Your task to perform on an android device: Open Reddit.com Image 0: 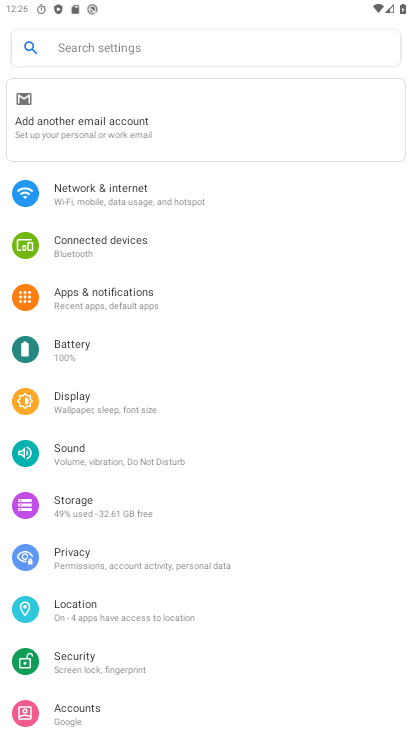
Step 0: press back button
Your task to perform on an android device: Open Reddit.com Image 1: 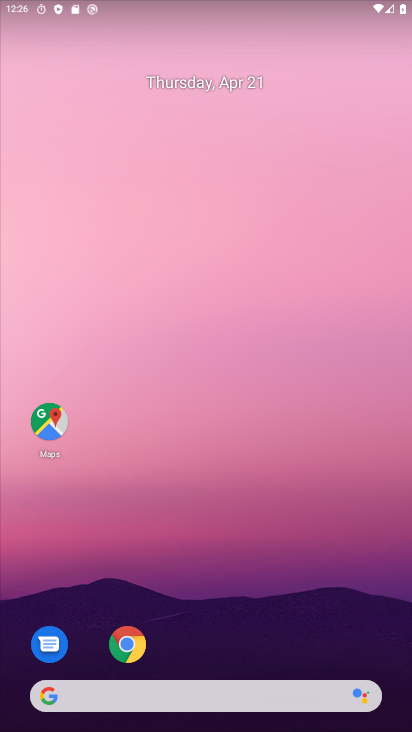
Step 1: click (133, 643)
Your task to perform on an android device: Open Reddit.com Image 2: 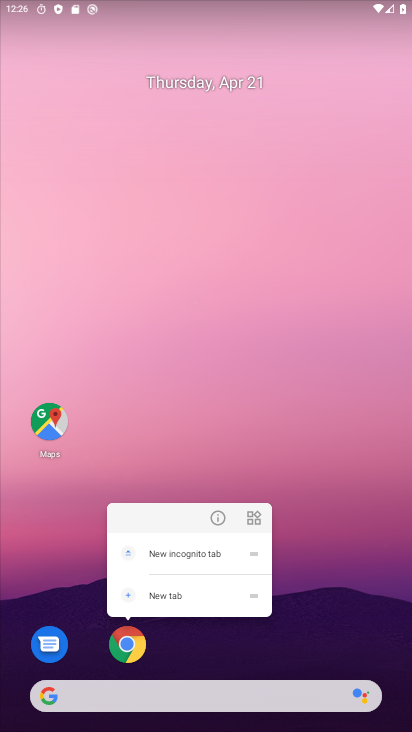
Step 2: click (129, 642)
Your task to perform on an android device: Open Reddit.com Image 3: 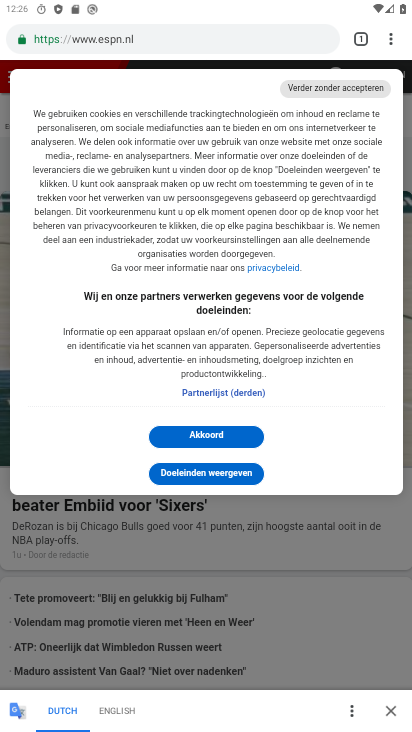
Step 3: click (362, 40)
Your task to perform on an android device: Open Reddit.com Image 4: 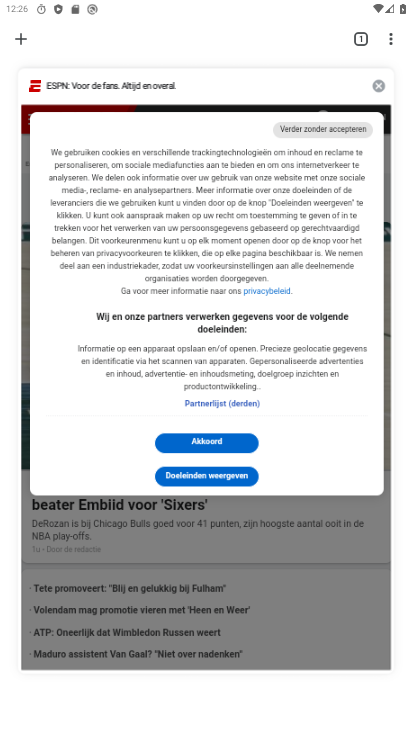
Step 4: click (16, 32)
Your task to perform on an android device: Open Reddit.com Image 5: 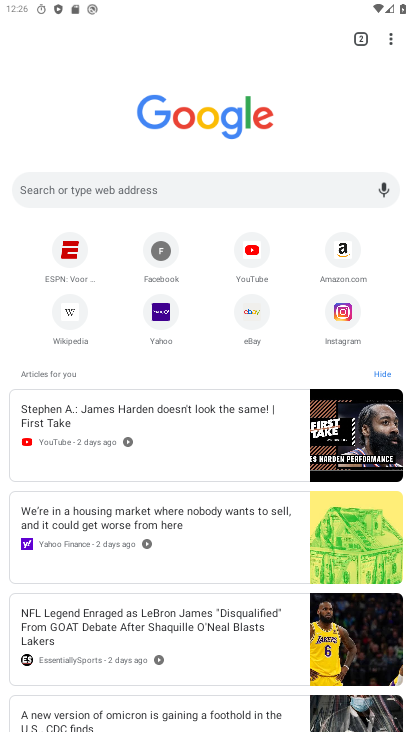
Step 5: click (121, 180)
Your task to perform on an android device: Open Reddit.com Image 6: 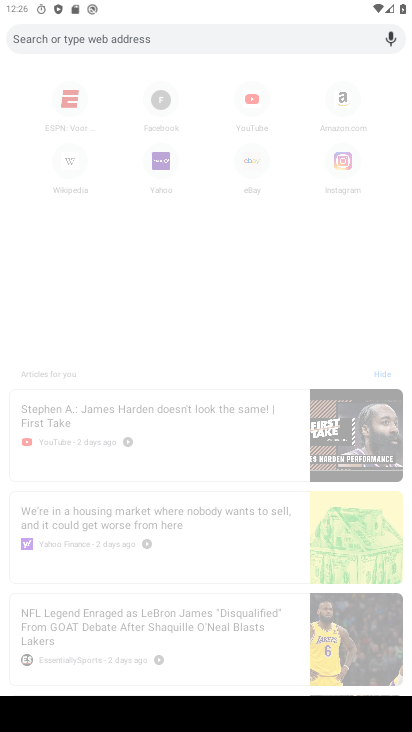
Step 6: type "reddit.com"
Your task to perform on an android device: Open Reddit.com Image 7: 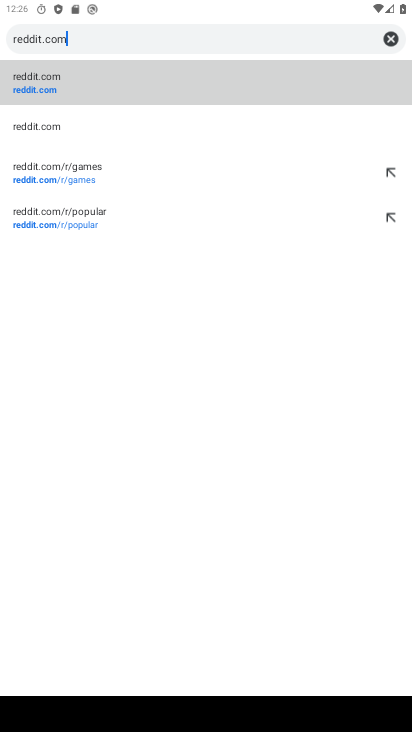
Step 7: click (86, 81)
Your task to perform on an android device: Open Reddit.com Image 8: 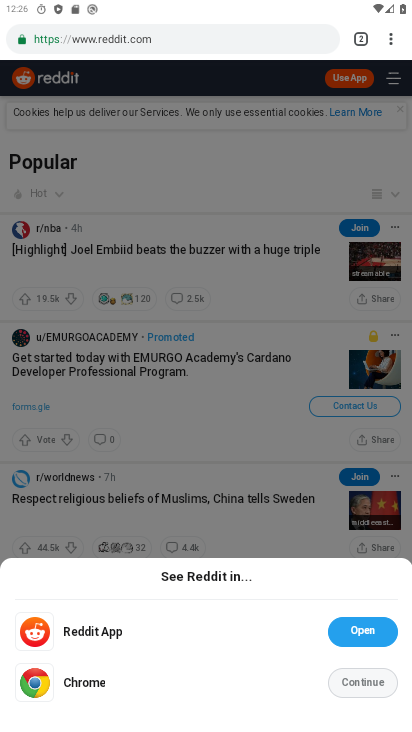
Step 8: task complete